Your task to perform on an android device: Open location settings Image 0: 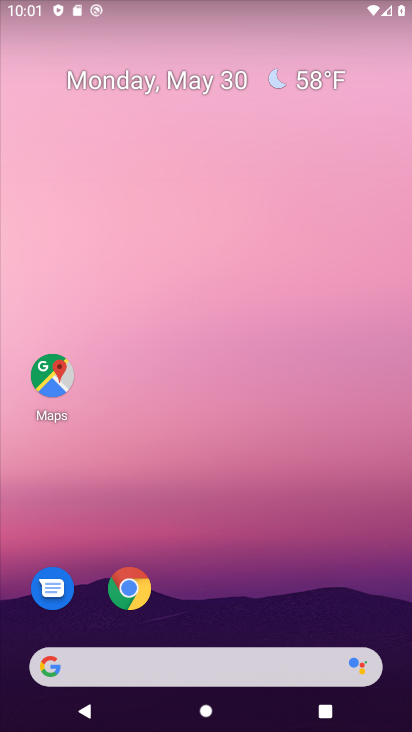
Step 0: drag from (225, 662) to (111, 178)
Your task to perform on an android device: Open location settings Image 1: 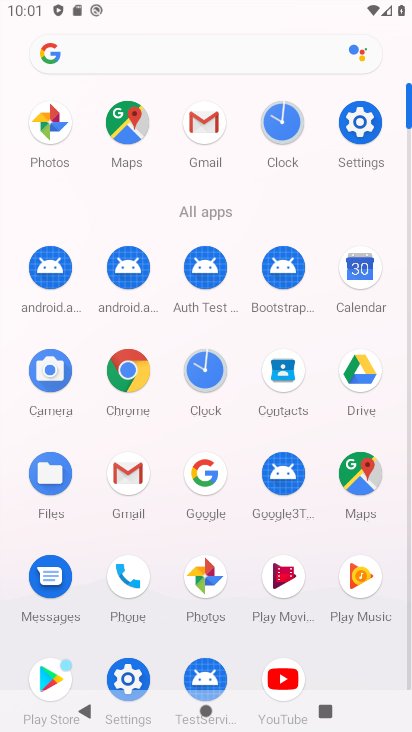
Step 1: click (359, 122)
Your task to perform on an android device: Open location settings Image 2: 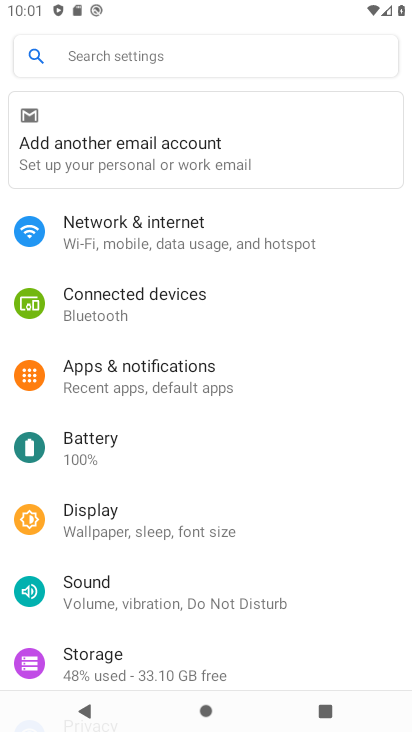
Step 2: drag from (162, 600) to (79, 193)
Your task to perform on an android device: Open location settings Image 3: 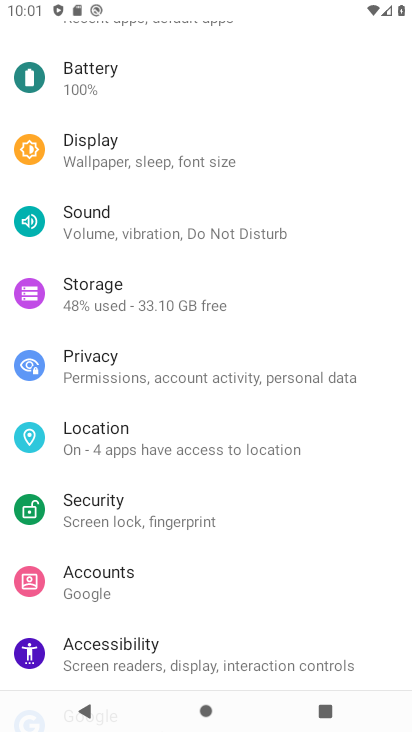
Step 3: click (118, 450)
Your task to perform on an android device: Open location settings Image 4: 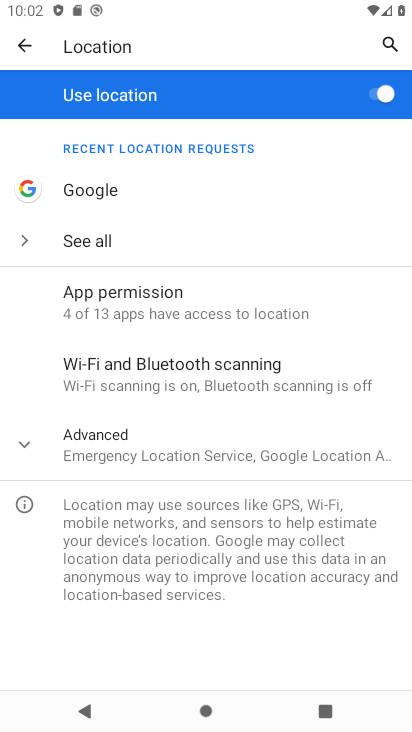
Step 4: task complete